Your task to perform on an android device: turn off picture-in-picture Image 0: 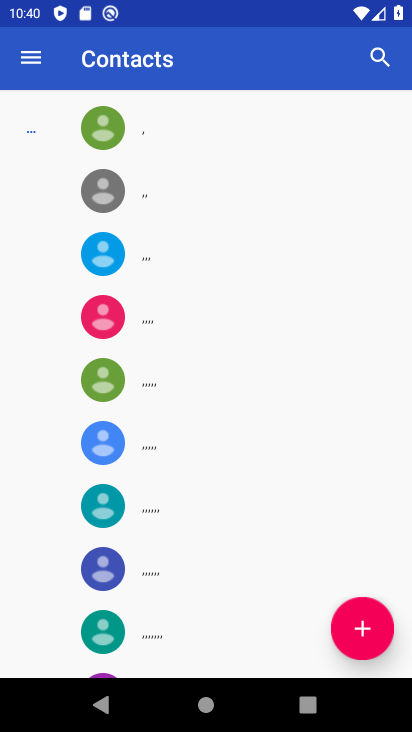
Step 0: press home button
Your task to perform on an android device: turn off picture-in-picture Image 1: 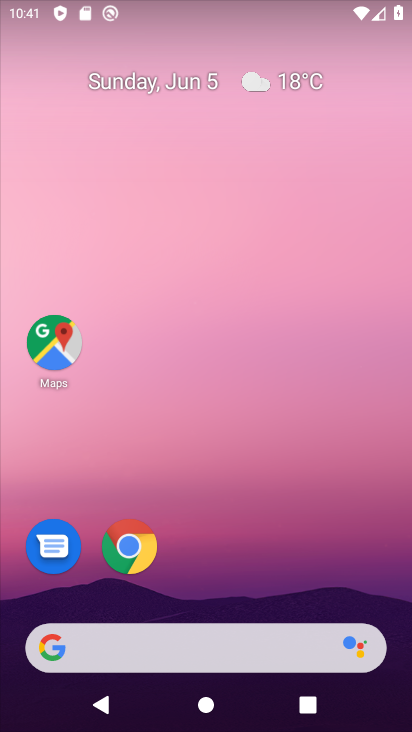
Step 1: click (136, 556)
Your task to perform on an android device: turn off picture-in-picture Image 2: 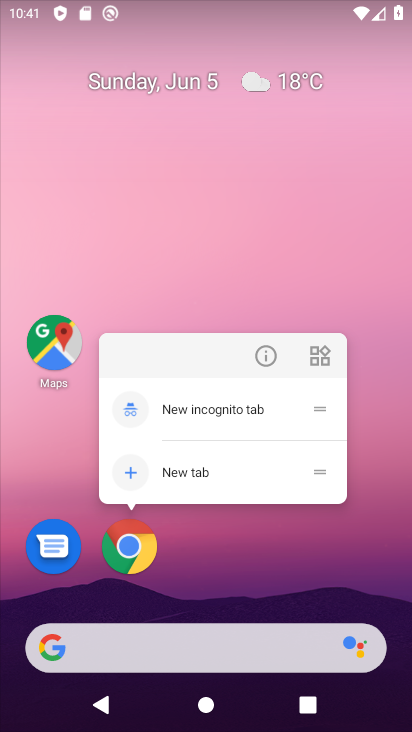
Step 2: click (272, 351)
Your task to perform on an android device: turn off picture-in-picture Image 3: 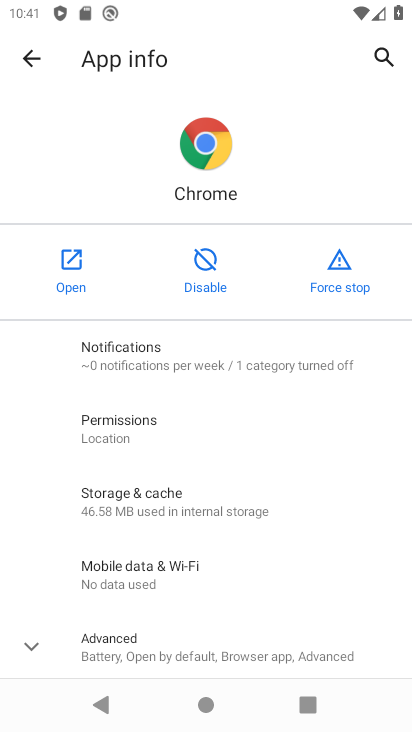
Step 3: drag from (287, 554) to (233, 294)
Your task to perform on an android device: turn off picture-in-picture Image 4: 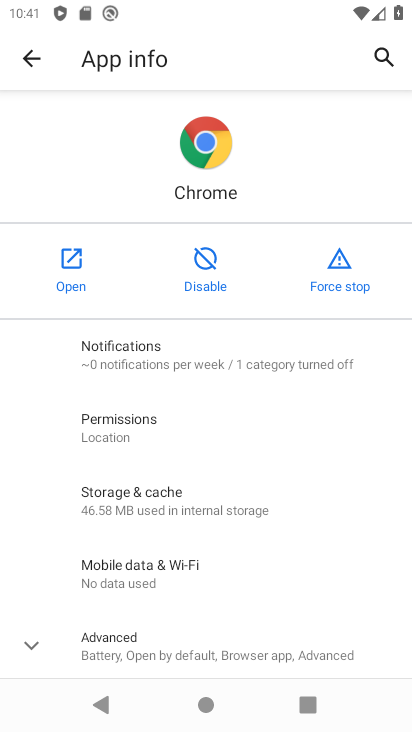
Step 4: drag from (185, 653) to (194, 421)
Your task to perform on an android device: turn off picture-in-picture Image 5: 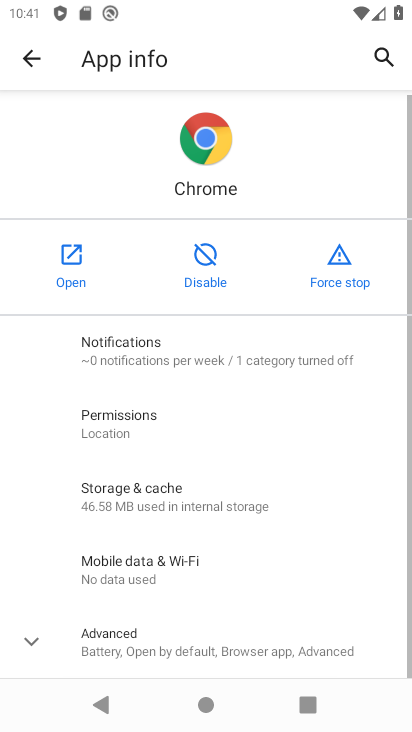
Step 5: click (163, 655)
Your task to perform on an android device: turn off picture-in-picture Image 6: 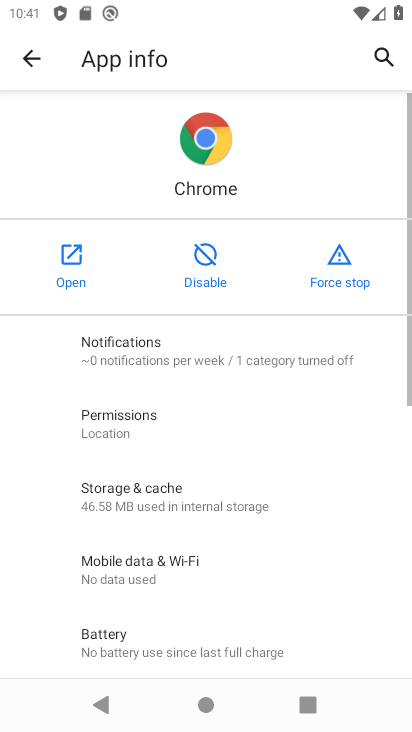
Step 6: drag from (202, 631) to (212, 388)
Your task to perform on an android device: turn off picture-in-picture Image 7: 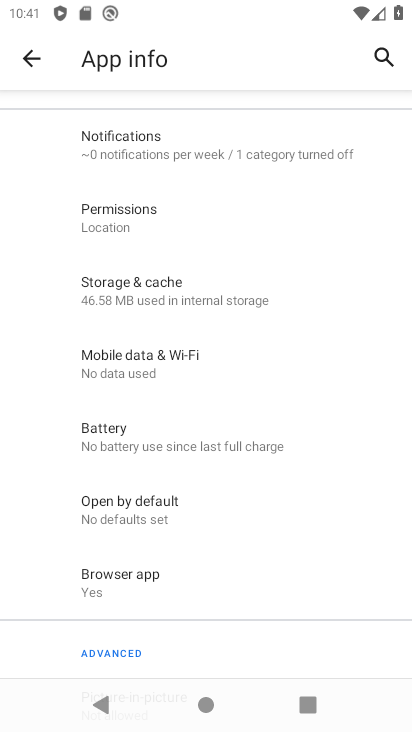
Step 7: drag from (154, 620) to (185, 302)
Your task to perform on an android device: turn off picture-in-picture Image 8: 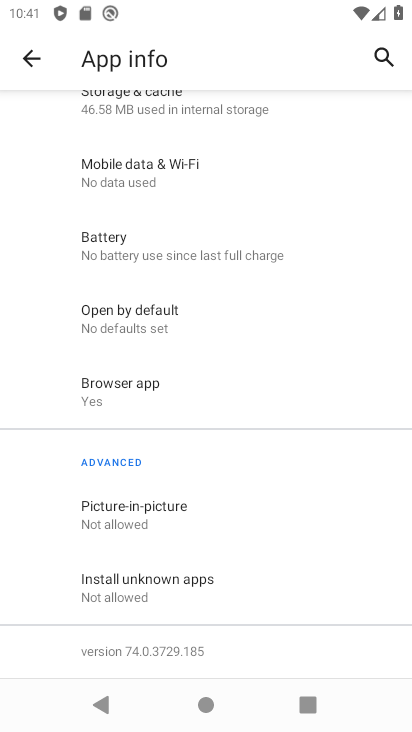
Step 8: click (162, 527)
Your task to perform on an android device: turn off picture-in-picture Image 9: 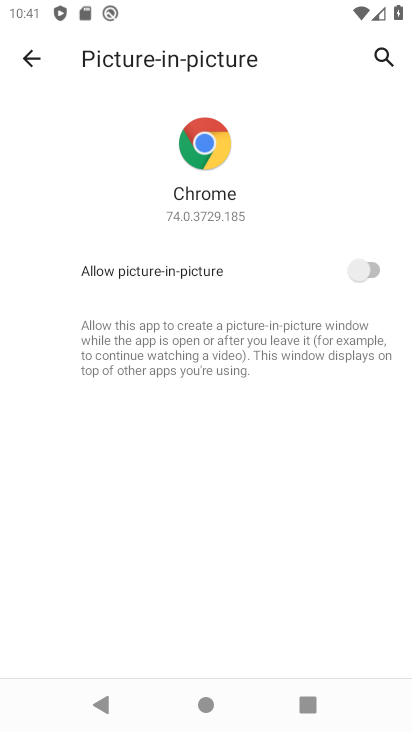
Step 9: task complete